Your task to perform on an android device: toggle priority inbox in the gmail app Image 0: 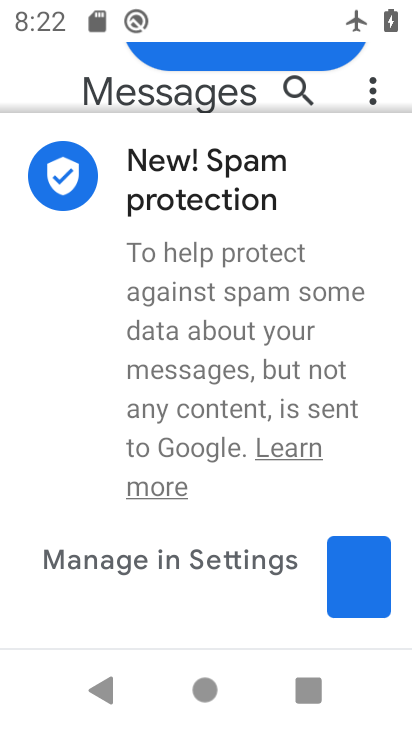
Step 0: press home button
Your task to perform on an android device: toggle priority inbox in the gmail app Image 1: 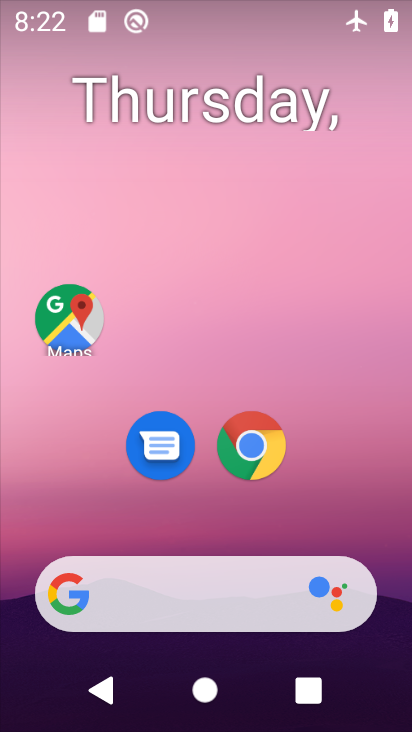
Step 1: drag from (296, 517) to (297, 172)
Your task to perform on an android device: toggle priority inbox in the gmail app Image 2: 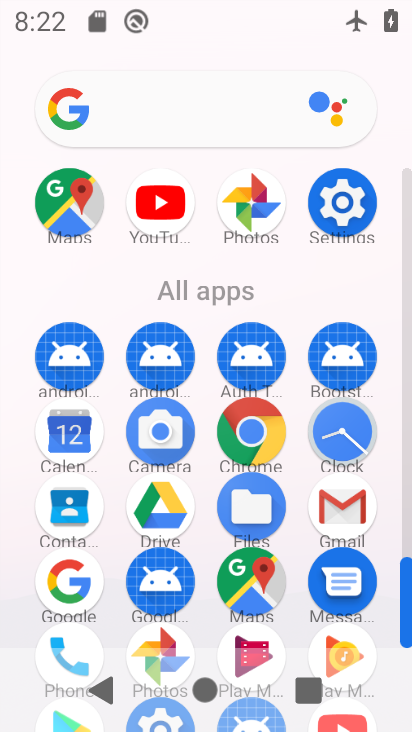
Step 2: click (336, 493)
Your task to perform on an android device: toggle priority inbox in the gmail app Image 3: 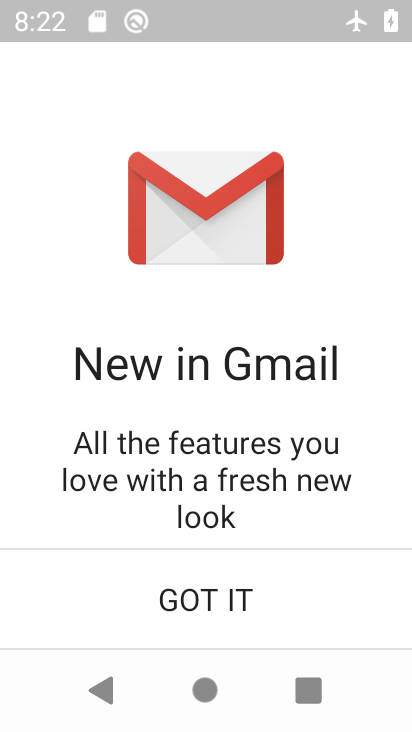
Step 3: click (209, 583)
Your task to perform on an android device: toggle priority inbox in the gmail app Image 4: 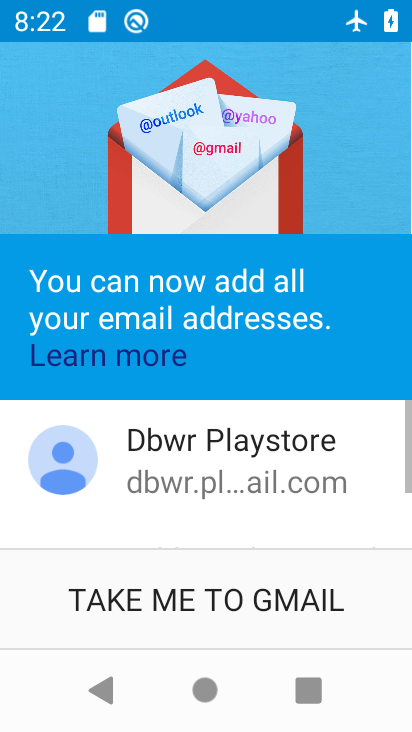
Step 4: click (211, 595)
Your task to perform on an android device: toggle priority inbox in the gmail app Image 5: 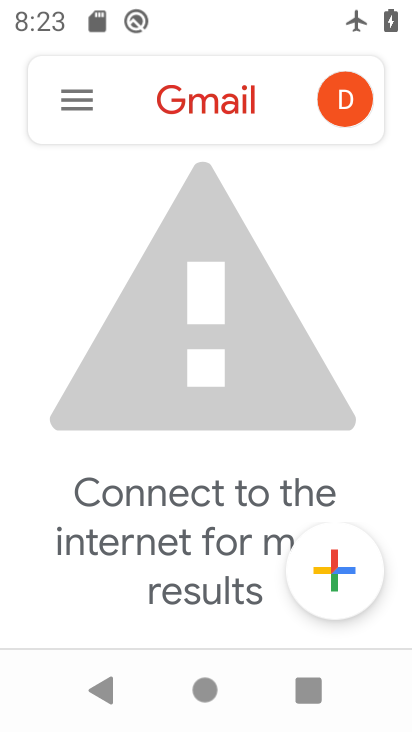
Step 5: click (90, 115)
Your task to perform on an android device: toggle priority inbox in the gmail app Image 6: 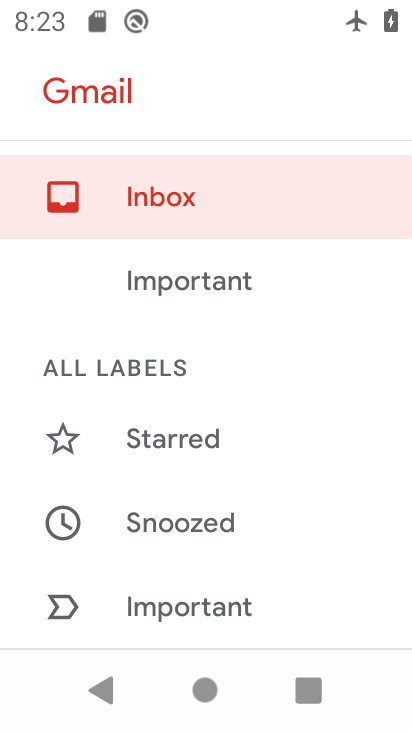
Step 6: drag from (165, 619) to (169, 137)
Your task to perform on an android device: toggle priority inbox in the gmail app Image 7: 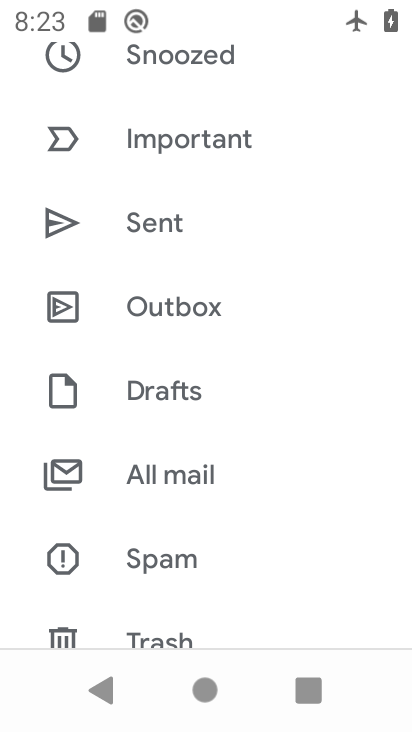
Step 7: drag from (354, 583) to (348, 71)
Your task to perform on an android device: toggle priority inbox in the gmail app Image 8: 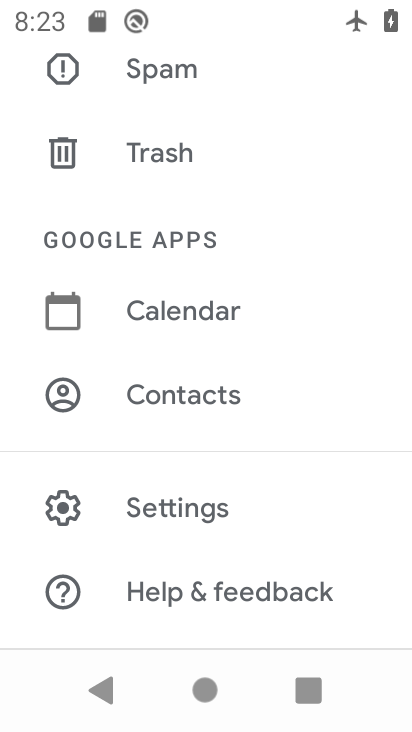
Step 8: click (161, 521)
Your task to perform on an android device: toggle priority inbox in the gmail app Image 9: 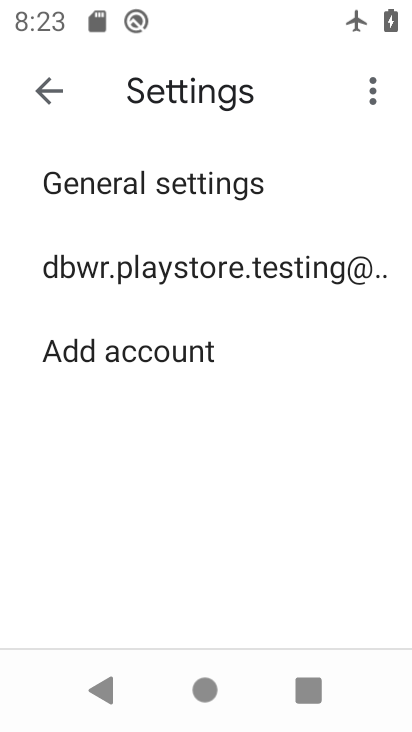
Step 9: click (174, 274)
Your task to perform on an android device: toggle priority inbox in the gmail app Image 10: 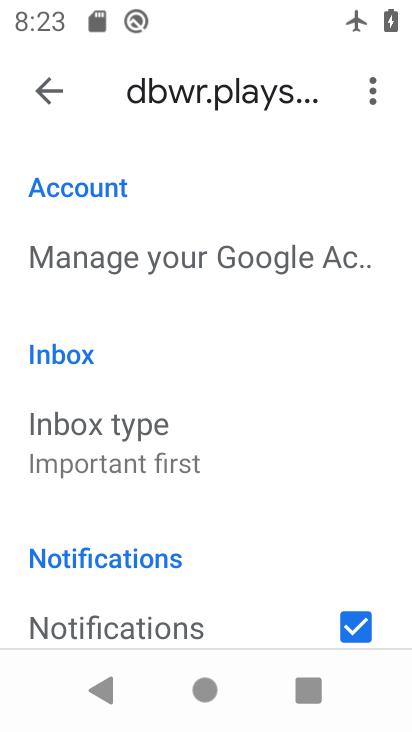
Step 10: click (122, 454)
Your task to perform on an android device: toggle priority inbox in the gmail app Image 11: 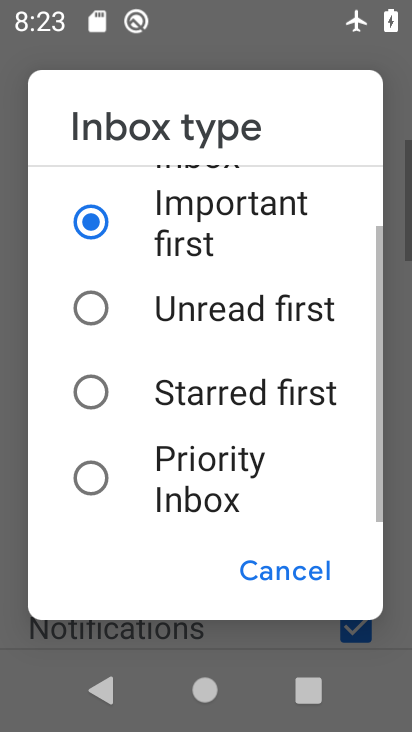
Step 11: click (122, 470)
Your task to perform on an android device: toggle priority inbox in the gmail app Image 12: 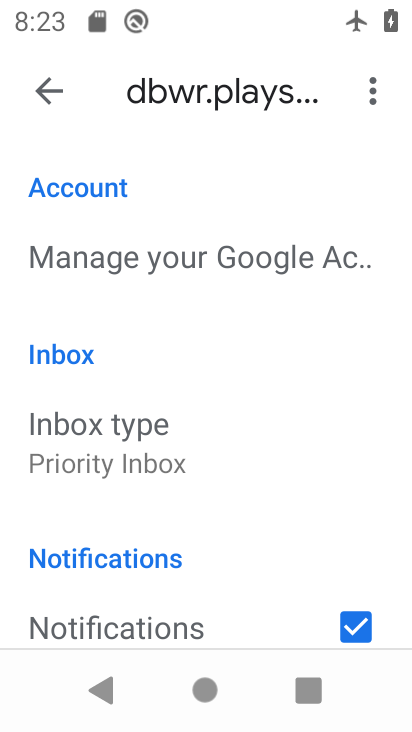
Step 12: task complete